Your task to perform on an android device: Go to wifi settings Image 0: 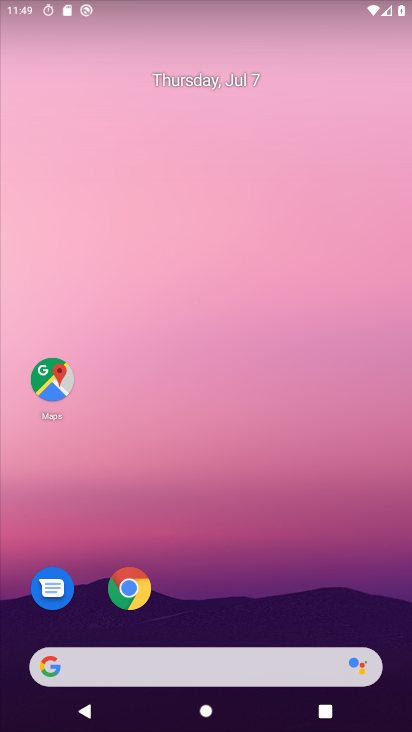
Step 0: drag from (198, 666) to (278, 194)
Your task to perform on an android device: Go to wifi settings Image 1: 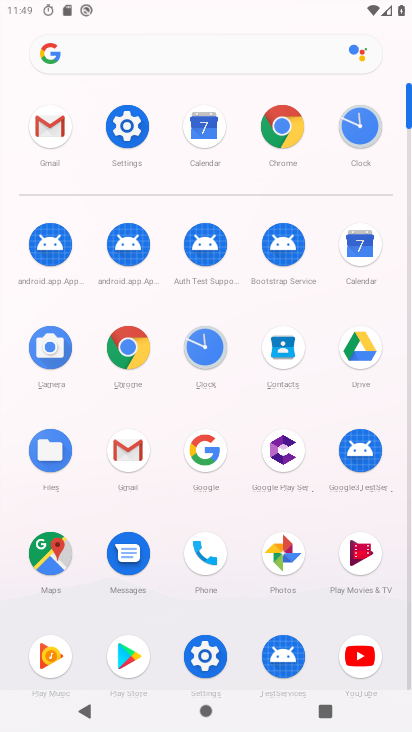
Step 1: click (128, 118)
Your task to perform on an android device: Go to wifi settings Image 2: 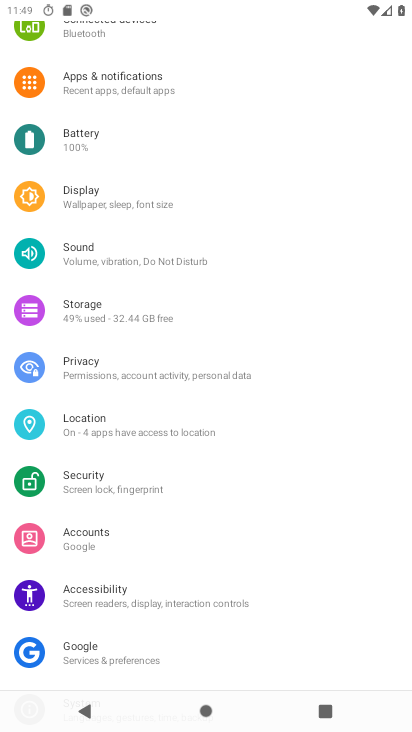
Step 2: drag from (295, 174) to (249, 663)
Your task to perform on an android device: Go to wifi settings Image 3: 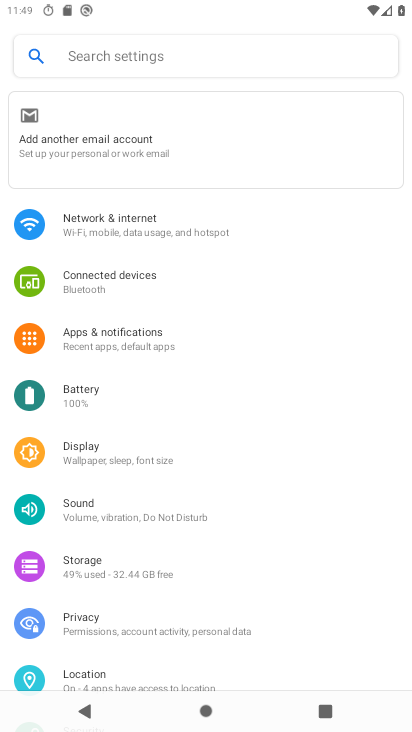
Step 3: click (143, 219)
Your task to perform on an android device: Go to wifi settings Image 4: 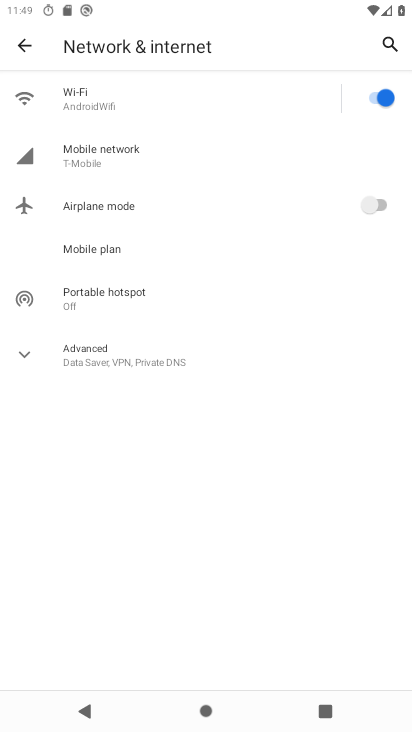
Step 4: click (101, 99)
Your task to perform on an android device: Go to wifi settings Image 5: 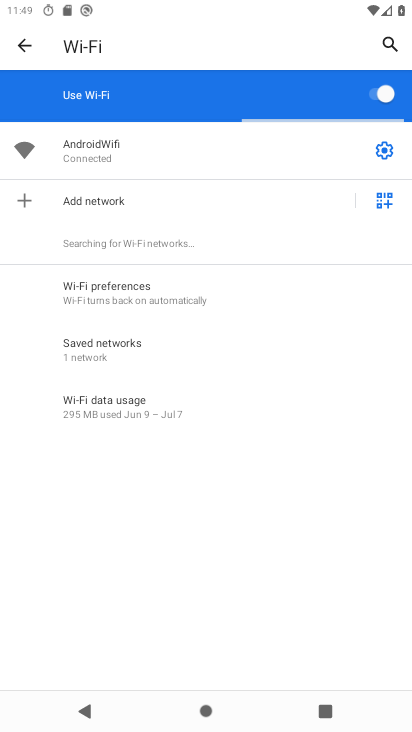
Step 5: task complete